Your task to perform on an android device: install app "Clock" Image 0: 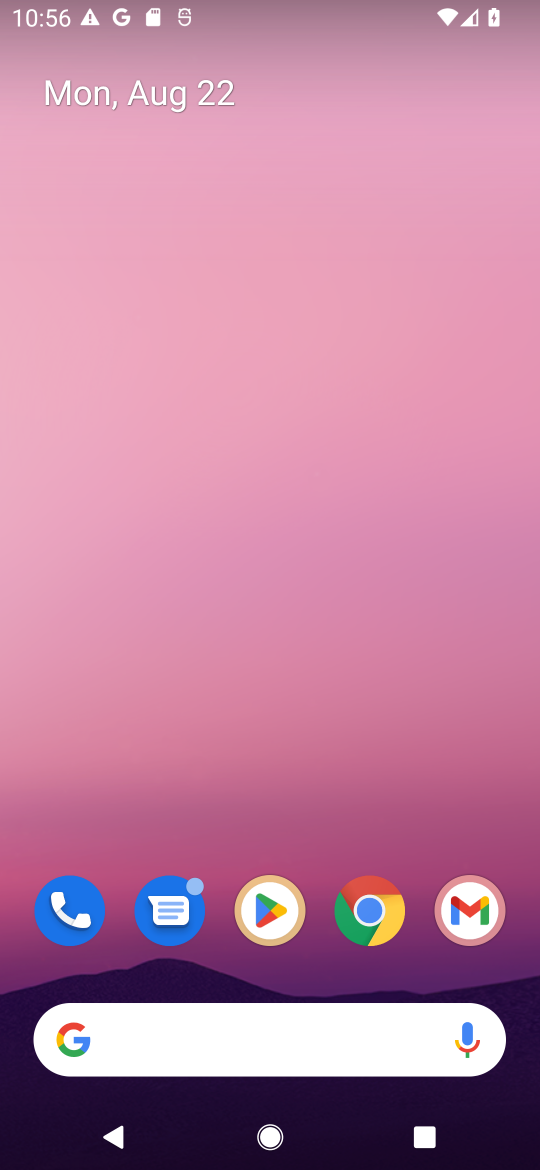
Step 0: click (292, 919)
Your task to perform on an android device: install app "Clock" Image 1: 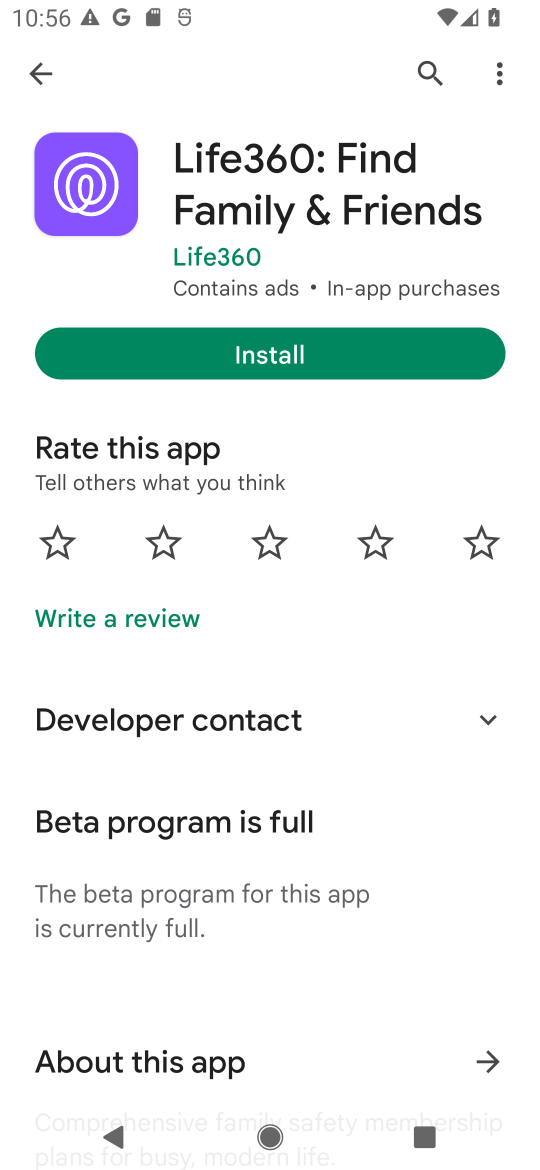
Step 1: click (418, 73)
Your task to perform on an android device: install app "Clock" Image 2: 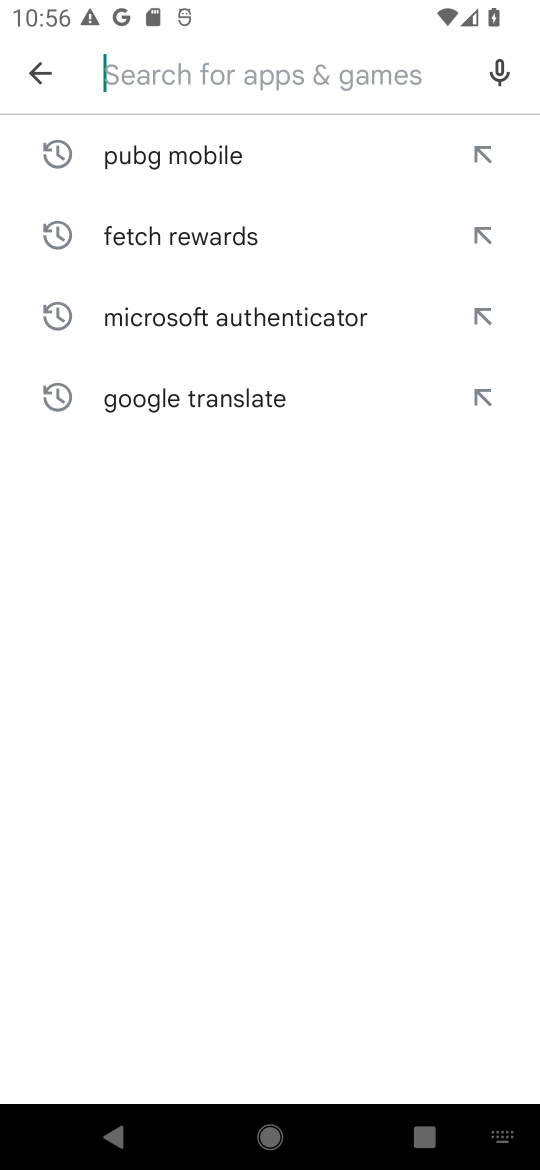
Step 2: type "Clock"
Your task to perform on an android device: install app "Clock" Image 3: 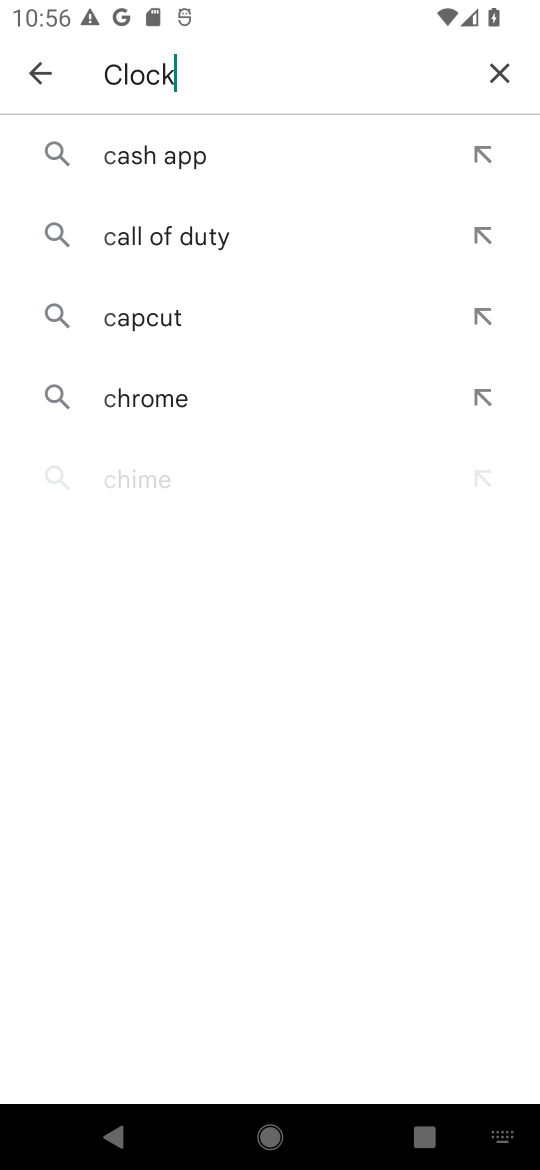
Step 3: type ""
Your task to perform on an android device: install app "Clock" Image 4: 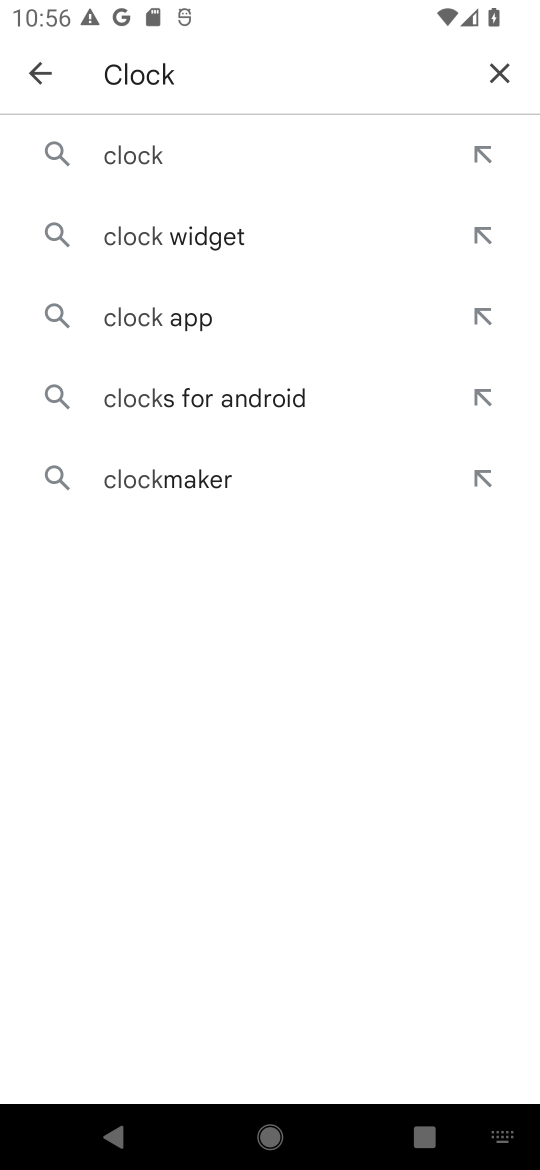
Step 4: click (181, 156)
Your task to perform on an android device: install app "Clock" Image 5: 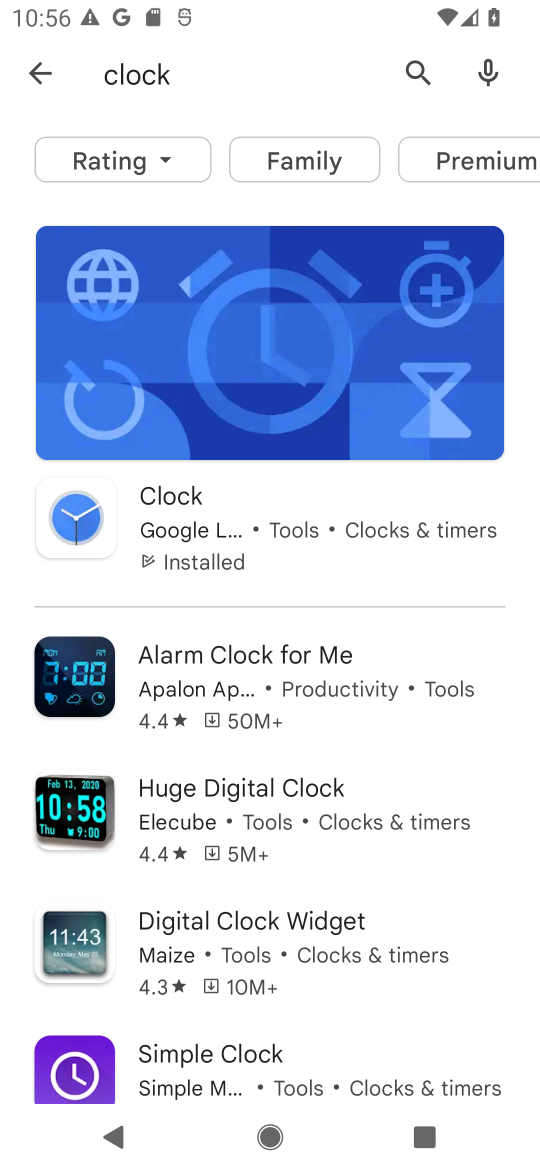
Step 5: click (297, 536)
Your task to perform on an android device: install app "Clock" Image 6: 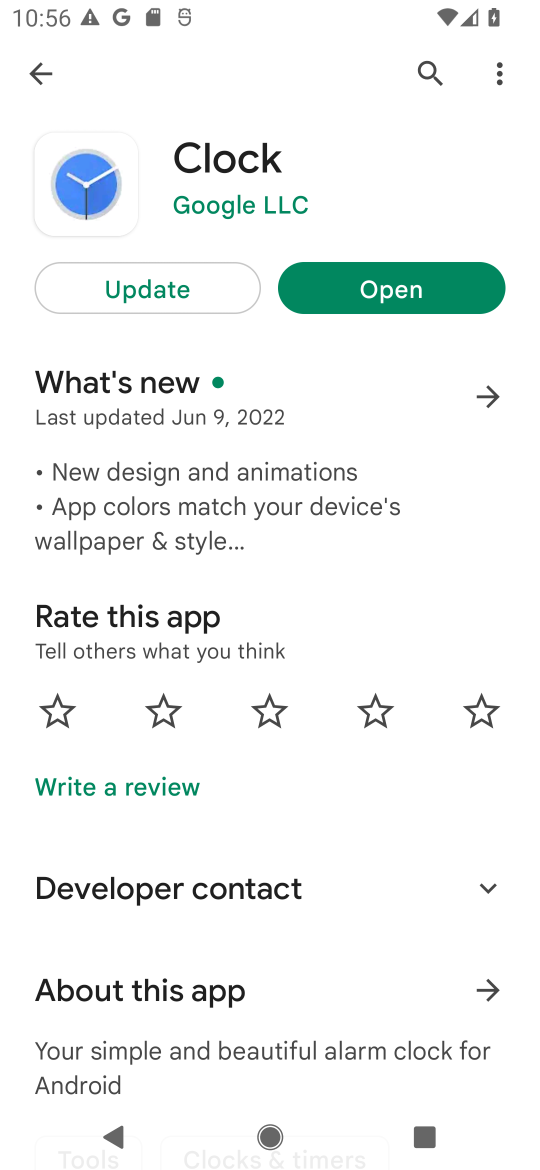
Step 6: task complete